Your task to perform on an android device: check storage Image 0: 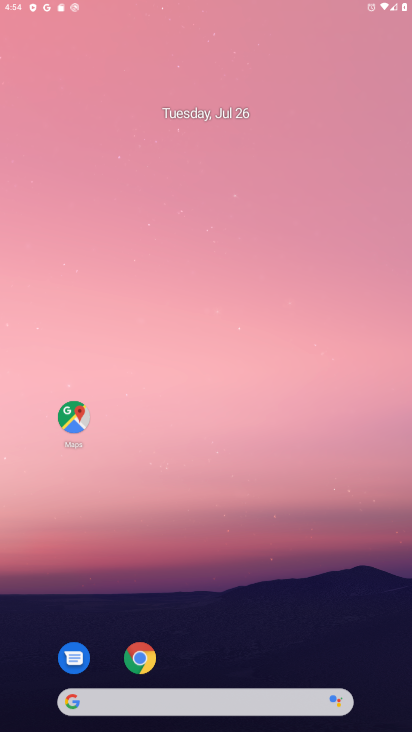
Step 0: press home button
Your task to perform on an android device: check storage Image 1: 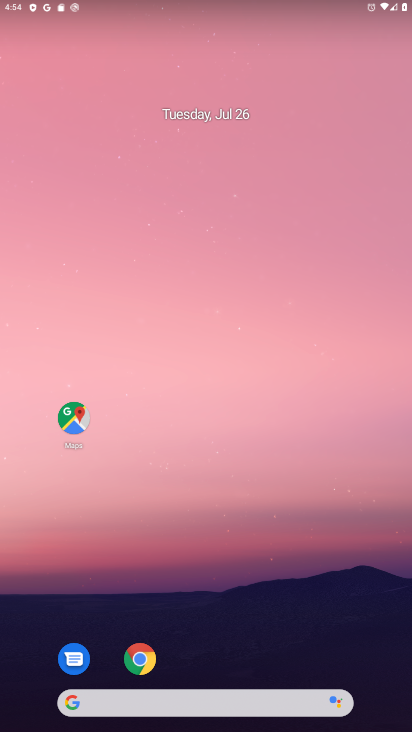
Step 1: drag from (210, 615) to (237, 49)
Your task to perform on an android device: check storage Image 2: 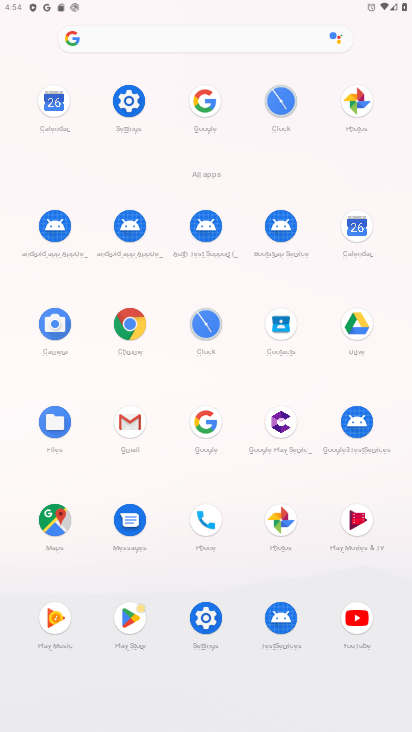
Step 2: click (207, 614)
Your task to perform on an android device: check storage Image 3: 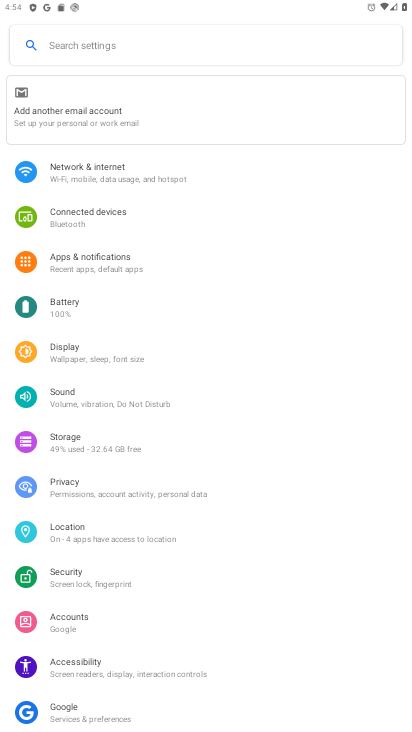
Step 3: click (92, 437)
Your task to perform on an android device: check storage Image 4: 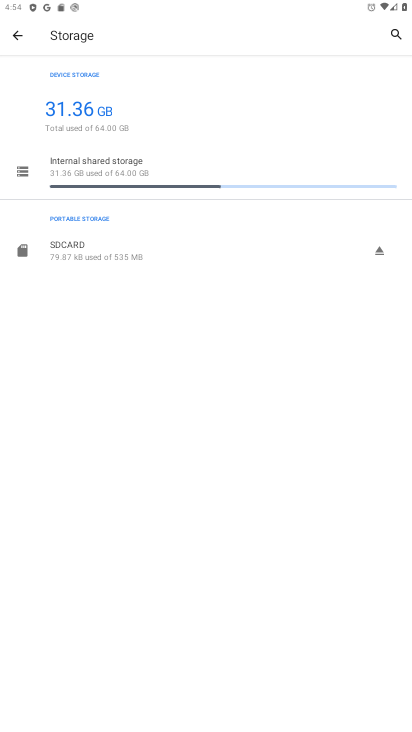
Step 4: task complete